Your task to perform on an android device: turn notification dots off Image 0: 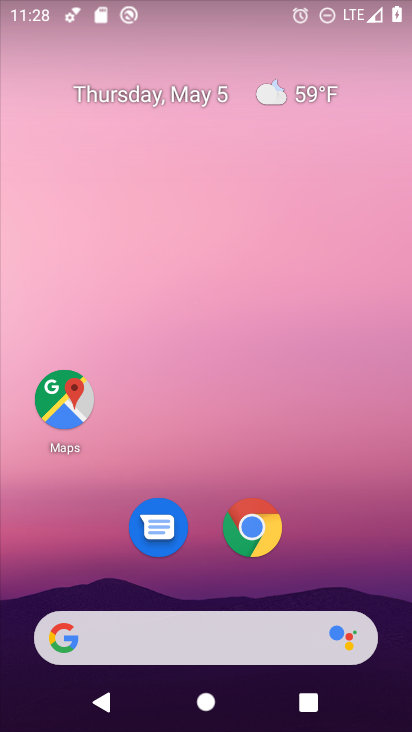
Step 0: drag from (250, 710) to (252, 123)
Your task to perform on an android device: turn notification dots off Image 1: 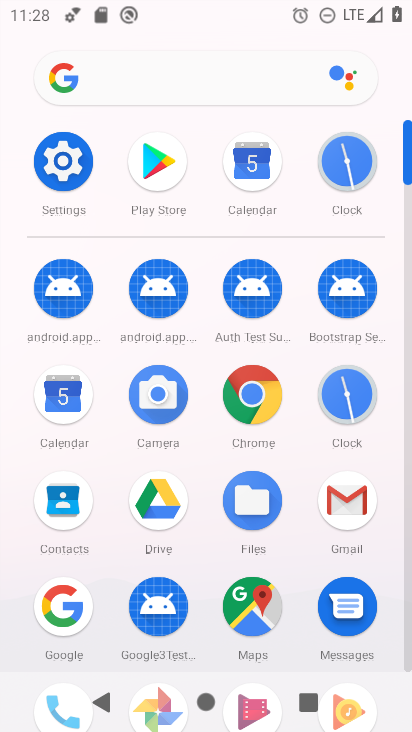
Step 1: click (69, 161)
Your task to perform on an android device: turn notification dots off Image 2: 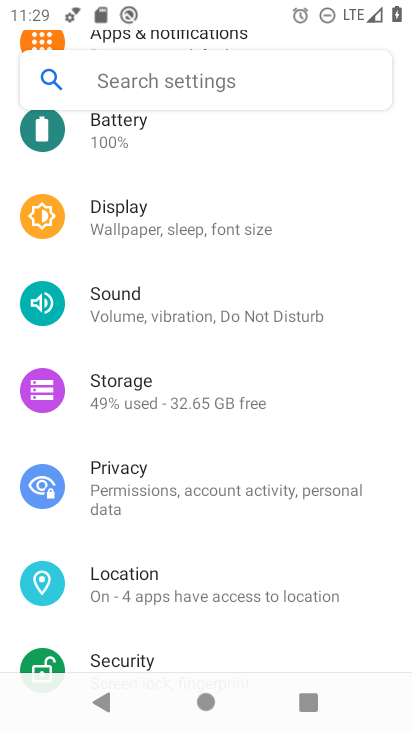
Step 2: drag from (315, 163) to (334, 549)
Your task to perform on an android device: turn notification dots off Image 3: 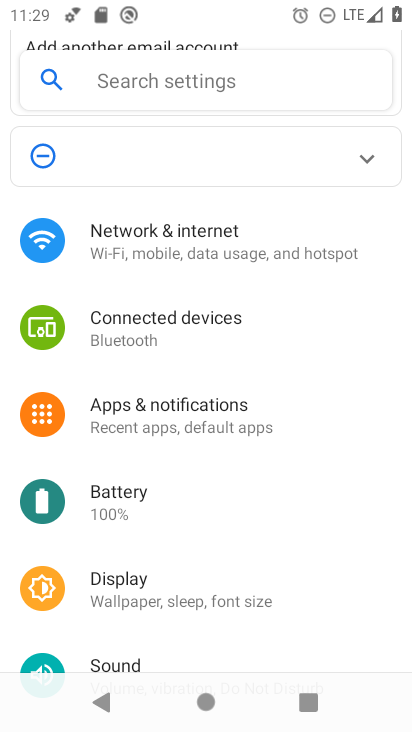
Step 3: click (218, 413)
Your task to perform on an android device: turn notification dots off Image 4: 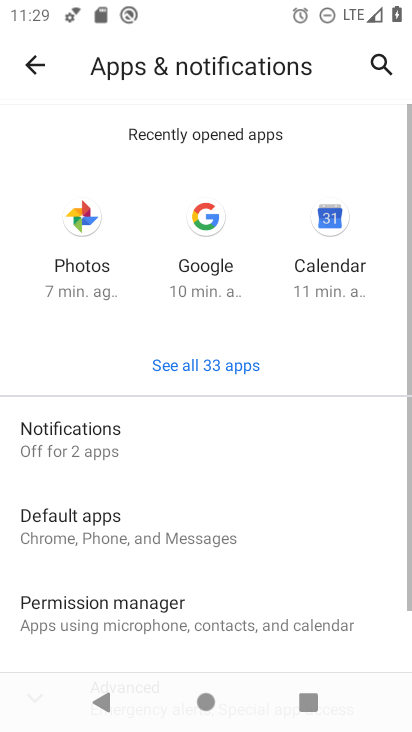
Step 4: drag from (311, 578) to (322, 76)
Your task to perform on an android device: turn notification dots off Image 5: 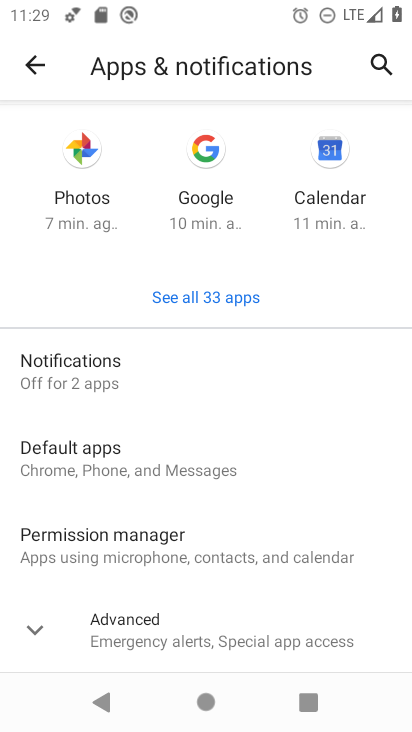
Step 5: click (210, 640)
Your task to perform on an android device: turn notification dots off Image 6: 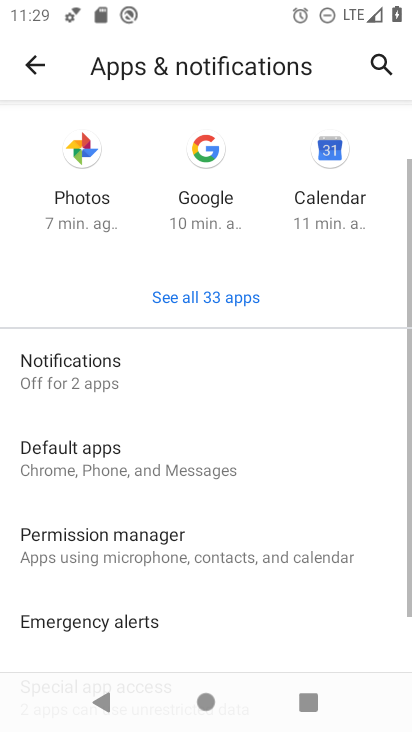
Step 6: drag from (268, 581) to (298, 67)
Your task to perform on an android device: turn notification dots off Image 7: 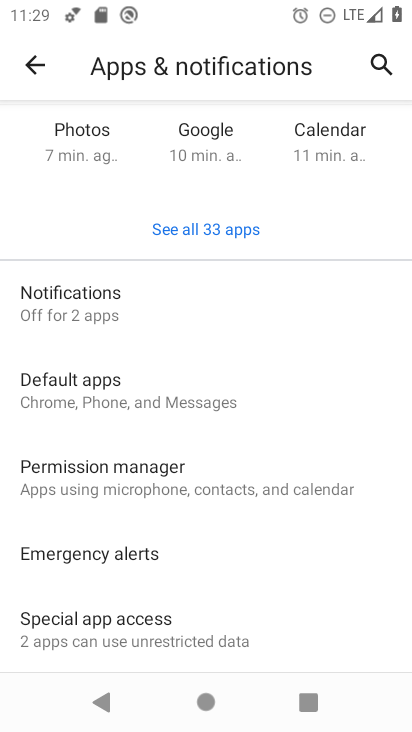
Step 7: click (214, 633)
Your task to perform on an android device: turn notification dots off Image 8: 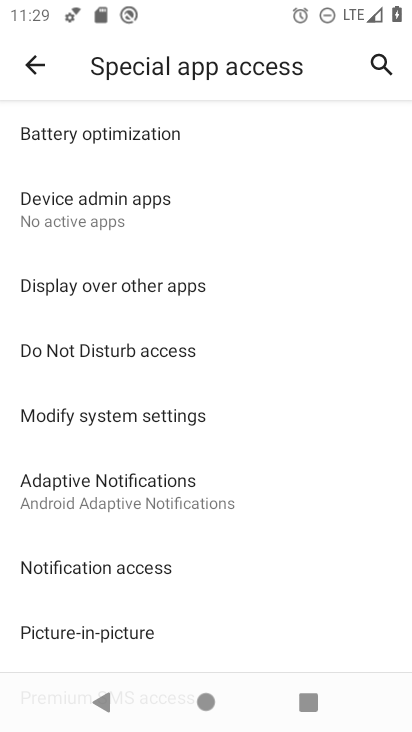
Step 8: drag from (274, 634) to (60, 0)
Your task to perform on an android device: turn notification dots off Image 9: 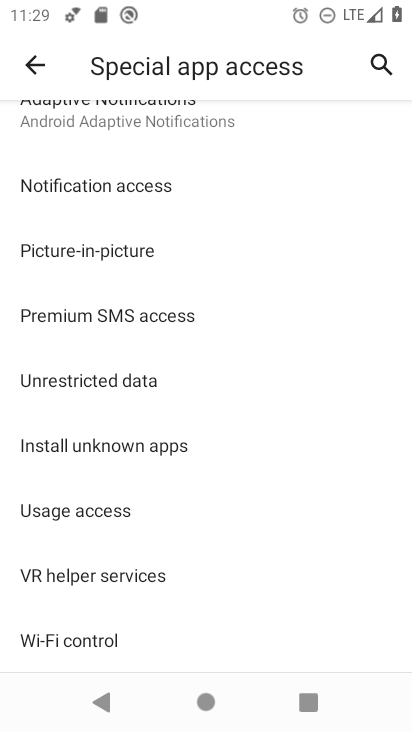
Step 9: click (35, 59)
Your task to perform on an android device: turn notification dots off Image 10: 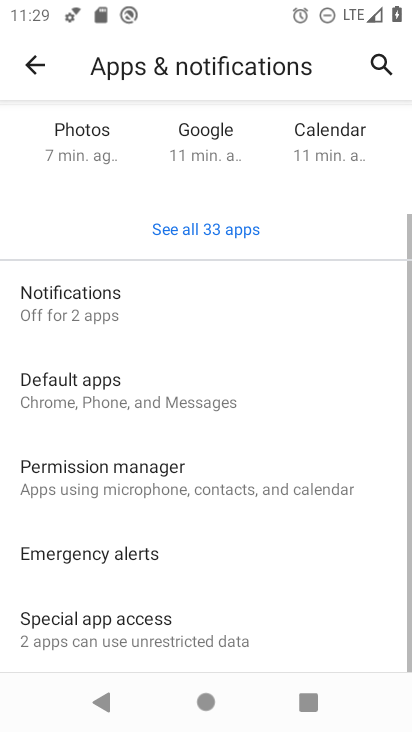
Step 10: drag from (325, 657) to (286, 48)
Your task to perform on an android device: turn notification dots off Image 11: 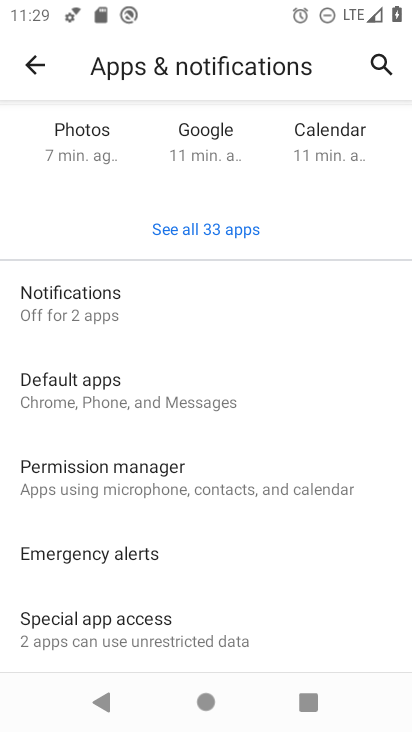
Step 11: click (115, 316)
Your task to perform on an android device: turn notification dots off Image 12: 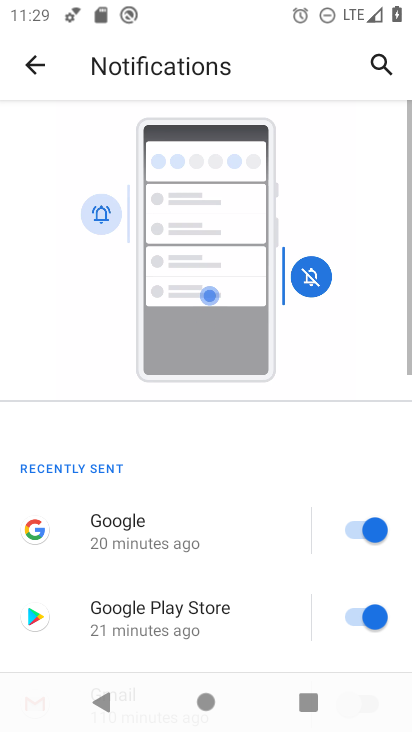
Step 12: drag from (202, 568) to (139, 13)
Your task to perform on an android device: turn notification dots off Image 13: 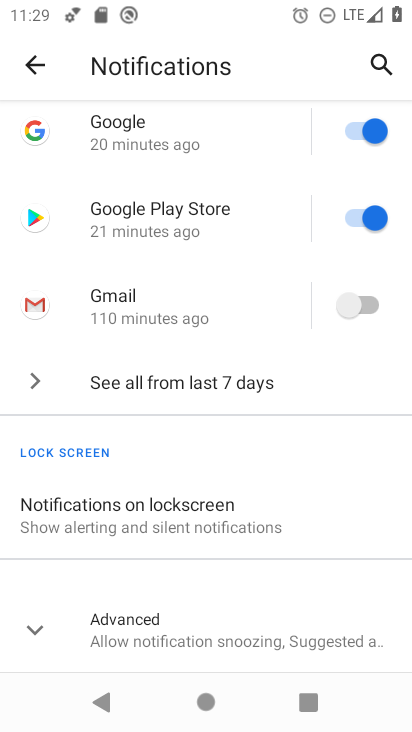
Step 13: drag from (260, 566) to (271, 94)
Your task to perform on an android device: turn notification dots off Image 14: 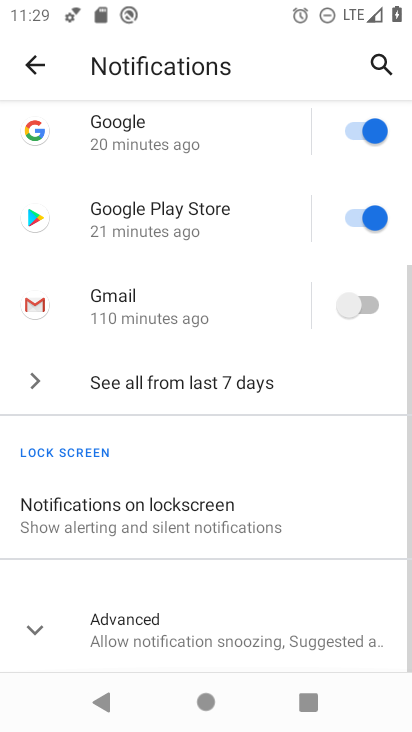
Step 14: click (218, 647)
Your task to perform on an android device: turn notification dots off Image 15: 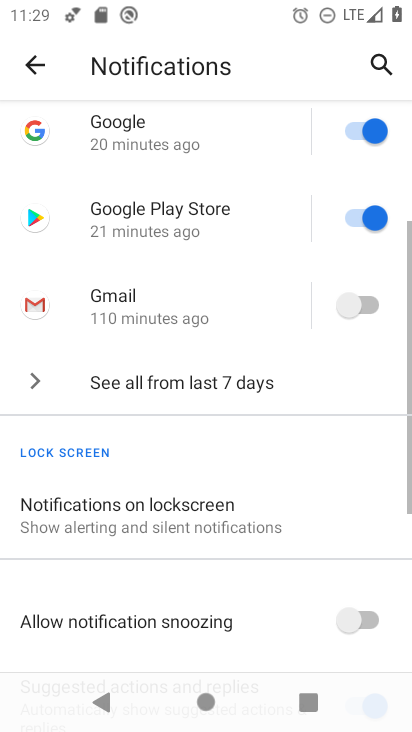
Step 15: drag from (238, 598) to (236, 161)
Your task to perform on an android device: turn notification dots off Image 16: 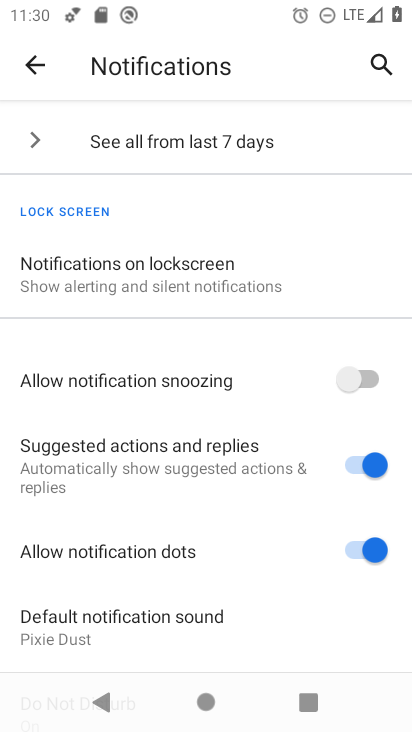
Step 16: click (377, 542)
Your task to perform on an android device: turn notification dots off Image 17: 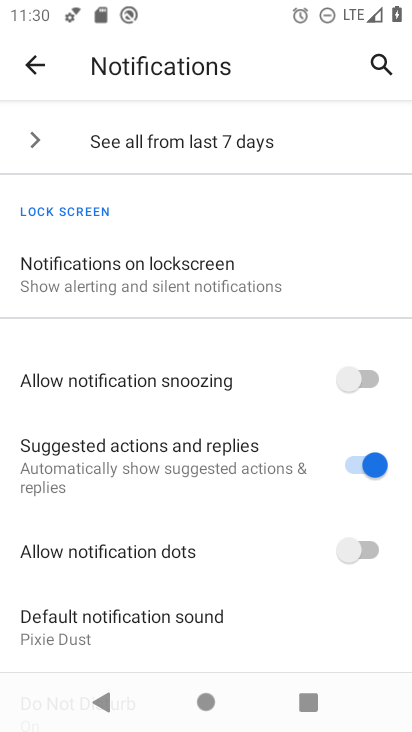
Step 17: task complete